Your task to perform on an android device: Go to location settings Image 0: 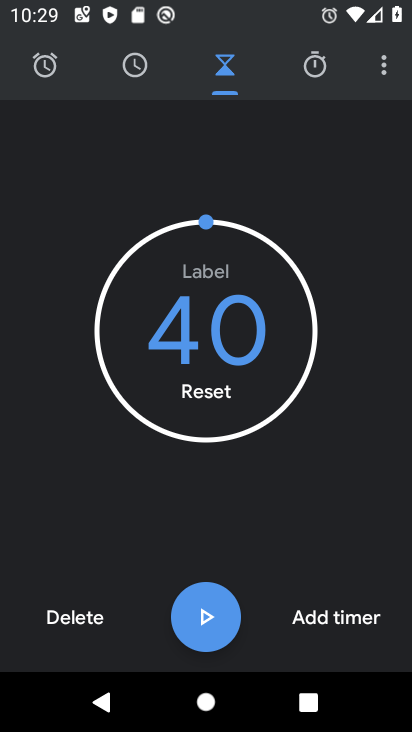
Step 0: press home button
Your task to perform on an android device: Go to location settings Image 1: 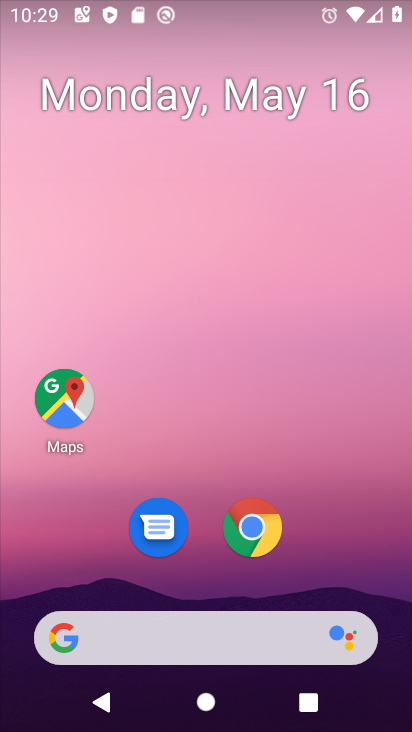
Step 1: drag from (376, 570) to (360, 0)
Your task to perform on an android device: Go to location settings Image 2: 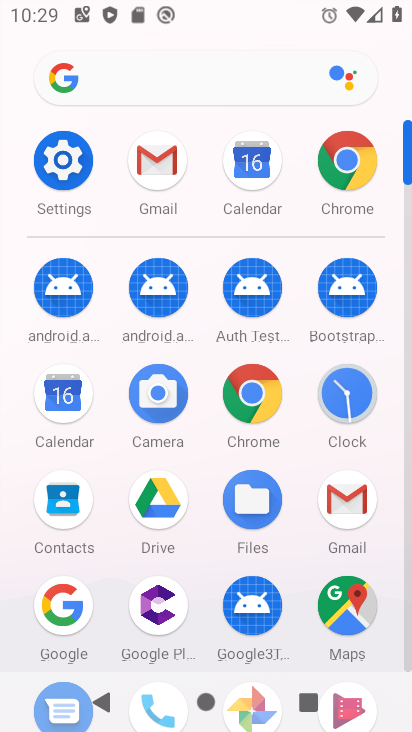
Step 2: click (55, 163)
Your task to perform on an android device: Go to location settings Image 3: 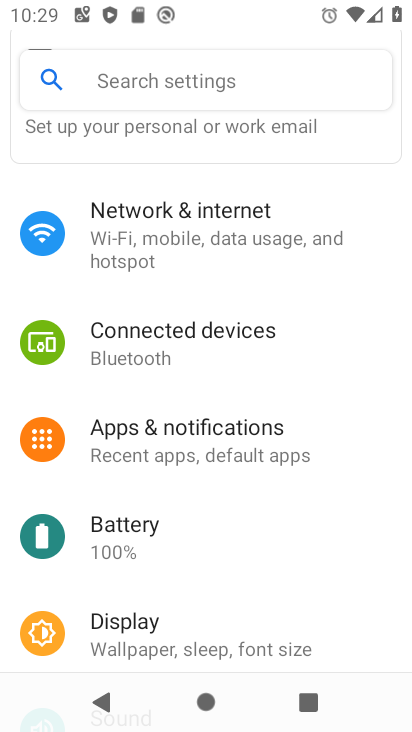
Step 3: drag from (290, 525) to (241, 176)
Your task to perform on an android device: Go to location settings Image 4: 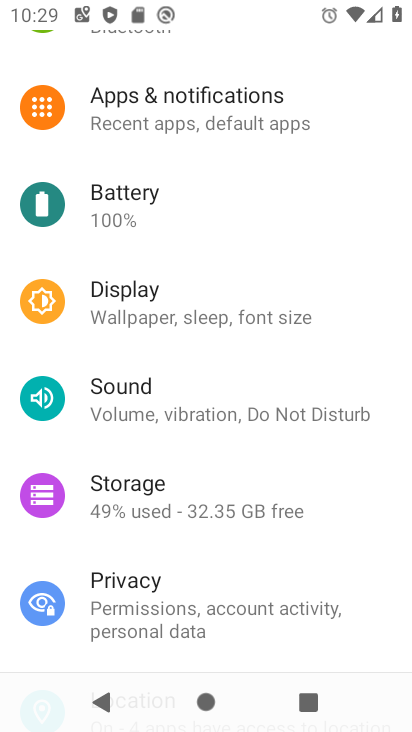
Step 4: drag from (224, 457) to (220, 102)
Your task to perform on an android device: Go to location settings Image 5: 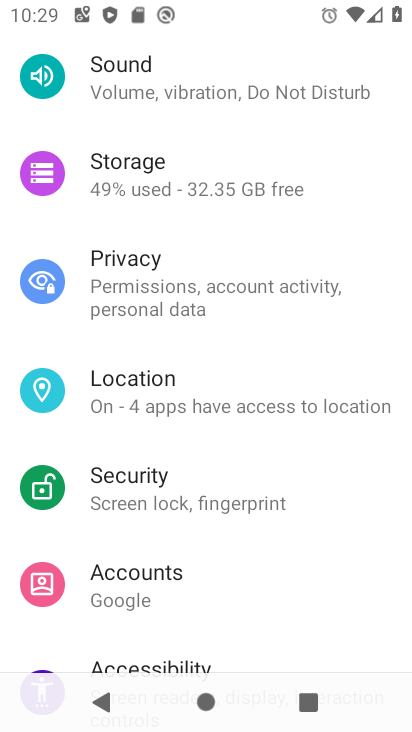
Step 5: click (157, 394)
Your task to perform on an android device: Go to location settings Image 6: 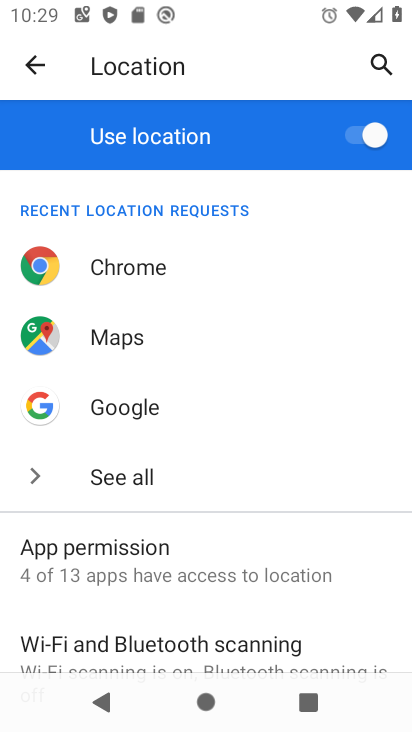
Step 6: task complete